Your task to perform on an android device: set the timer Image 0: 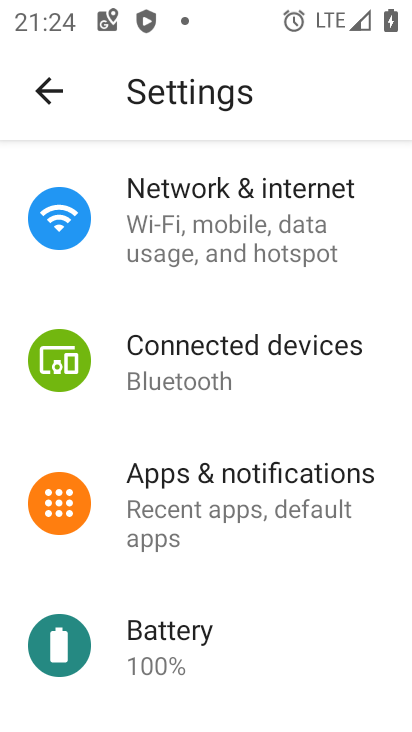
Step 0: press home button
Your task to perform on an android device: set the timer Image 1: 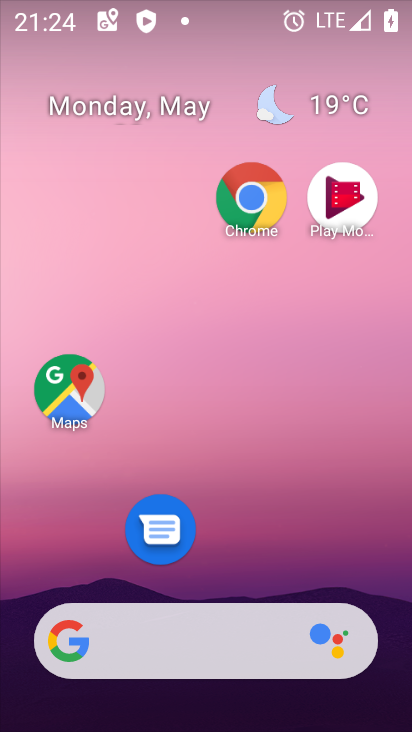
Step 1: drag from (266, 568) to (199, 53)
Your task to perform on an android device: set the timer Image 2: 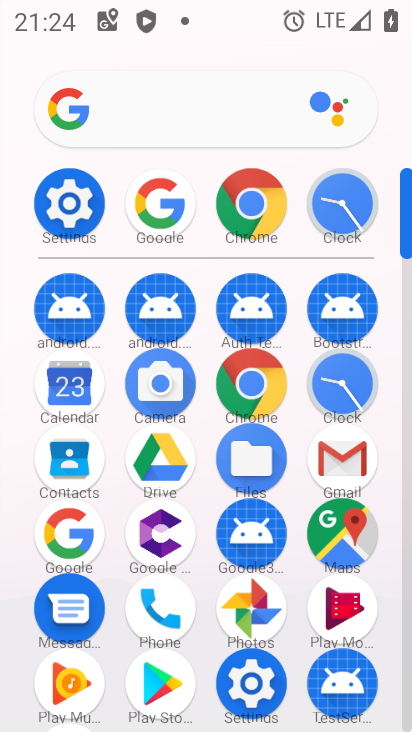
Step 2: click (346, 392)
Your task to perform on an android device: set the timer Image 3: 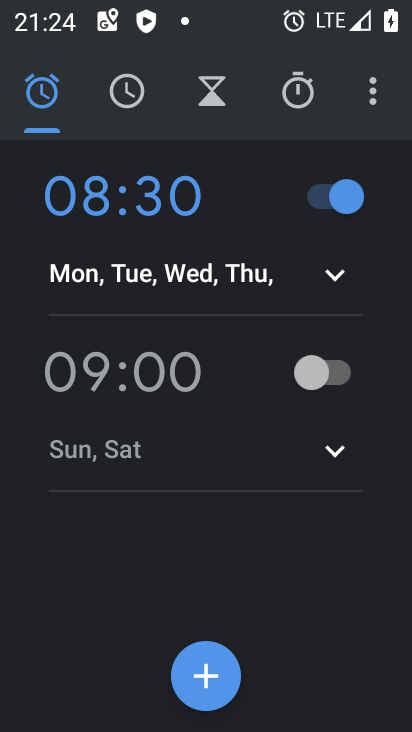
Step 3: click (201, 102)
Your task to perform on an android device: set the timer Image 4: 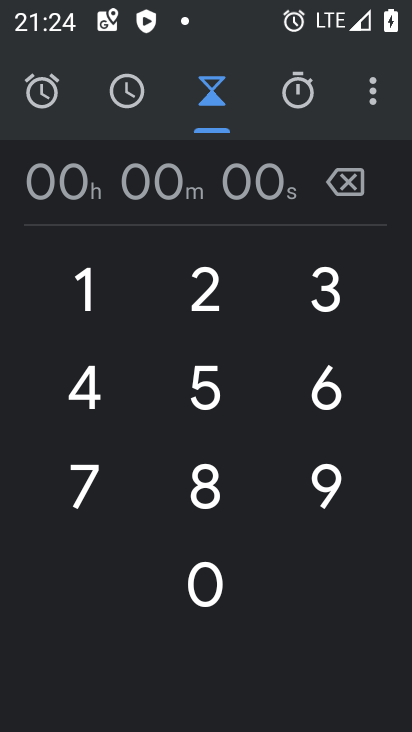
Step 4: click (88, 312)
Your task to perform on an android device: set the timer Image 5: 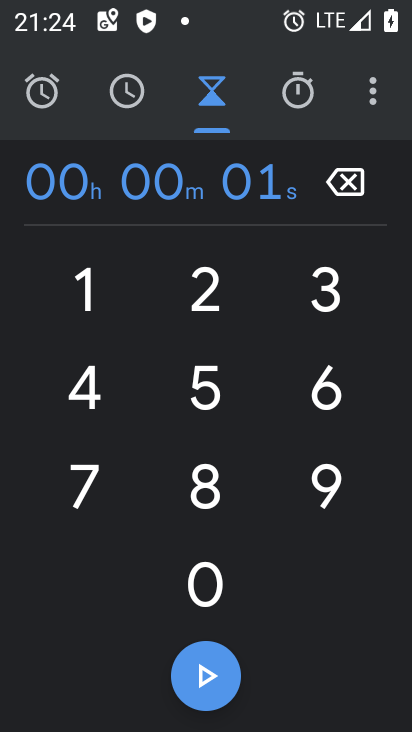
Step 5: click (194, 587)
Your task to perform on an android device: set the timer Image 6: 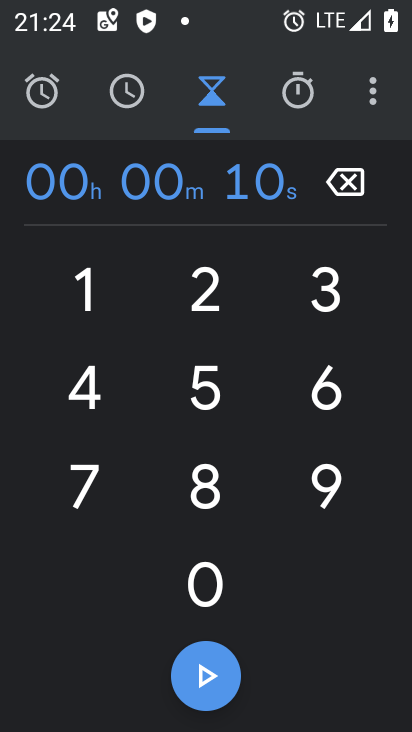
Step 6: click (206, 290)
Your task to perform on an android device: set the timer Image 7: 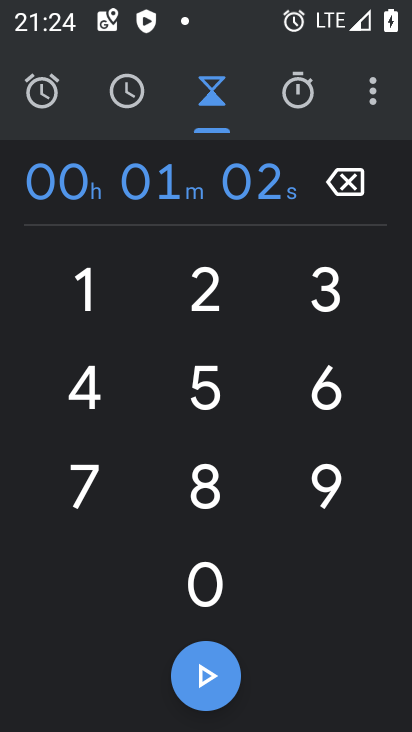
Step 7: click (206, 590)
Your task to perform on an android device: set the timer Image 8: 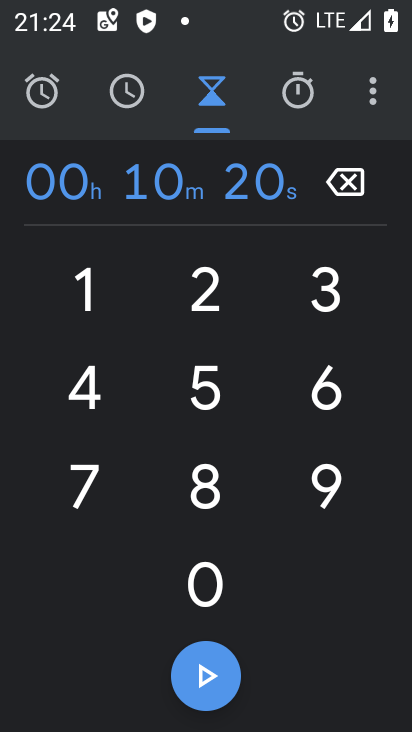
Step 8: click (199, 690)
Your task to perform on an android device: set the timer Image 9: 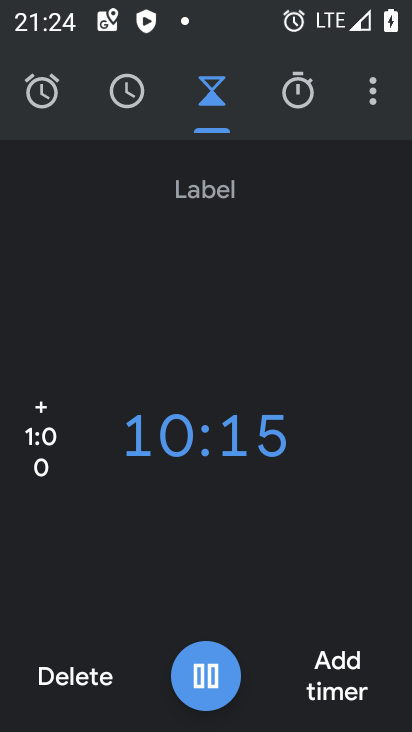
Step 9: click (326, 692)
Your task to perform on an android device: set the timer Image 10: 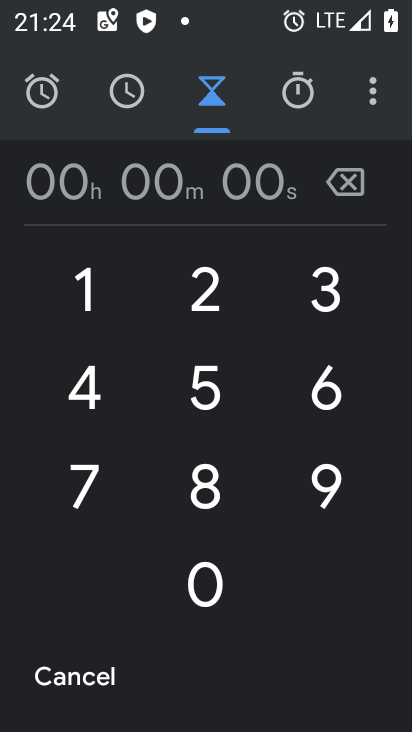
Step 10: task complete